Your task to perform on an android device: turn on the 12-hour format for clock Image 0: 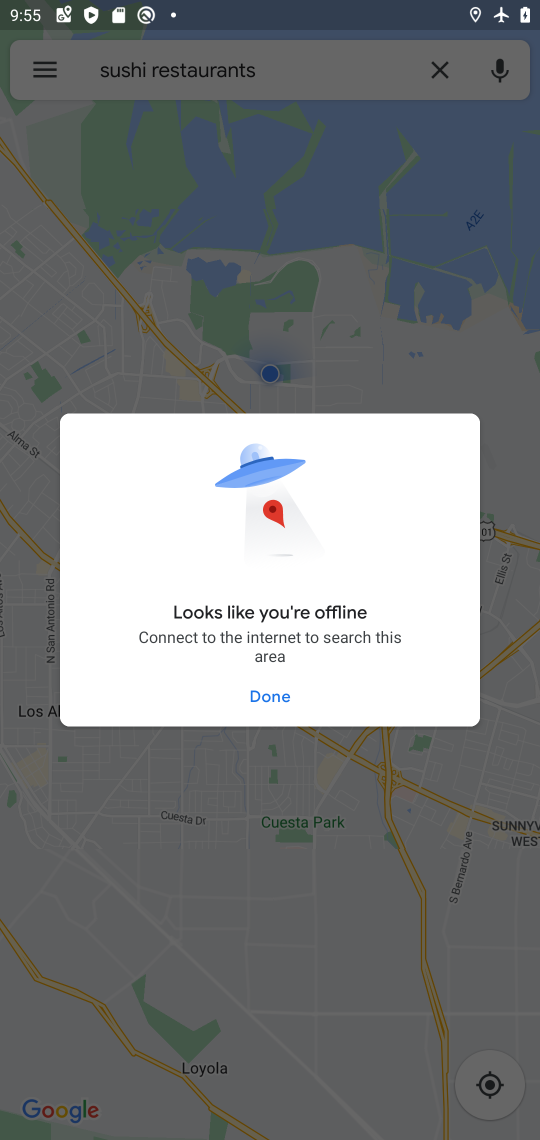
Step 0: press home button
Your task to perform on an android device: turn on the 12-hour format for clock Image 1: 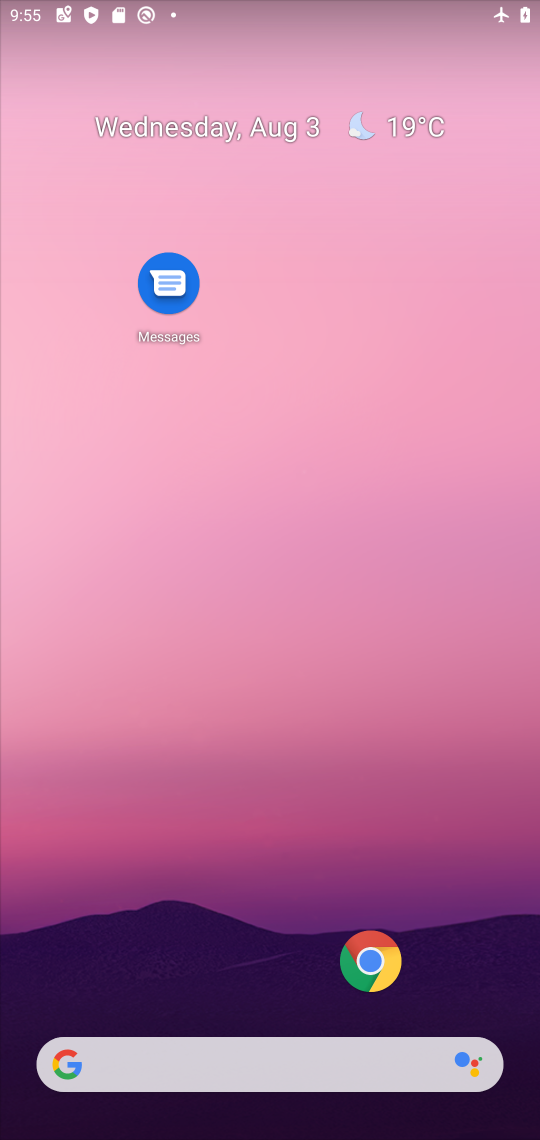
Step 1: drag from (266, 1019) to (129, 77)
Your task to perform on an android device: turn on the 12-hour format for clock Image 2: 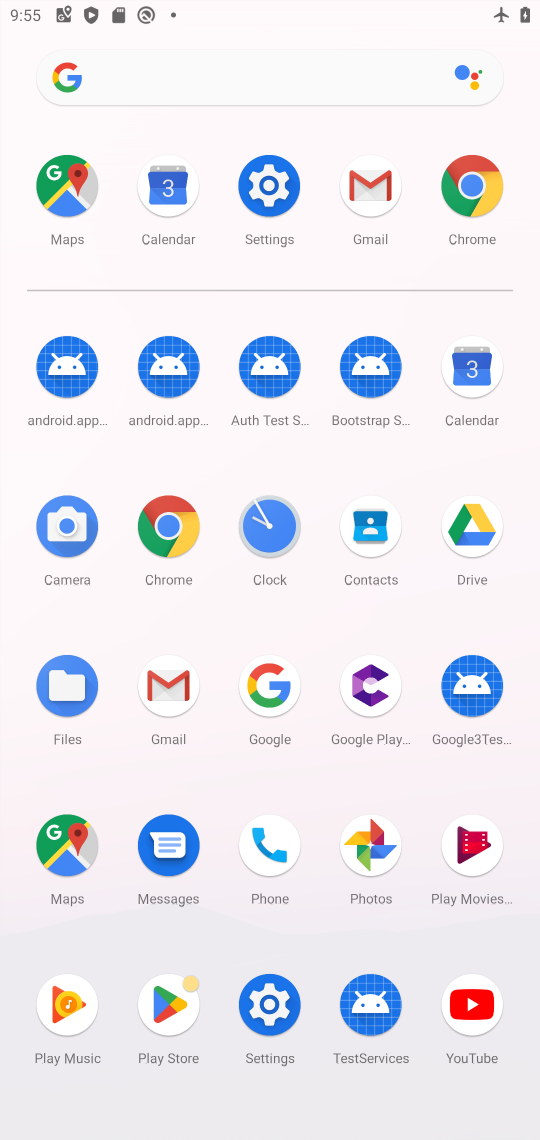
Step 2: click (271, 545)
Your task to perform on an android device: turn on the 12-hour format for clock Image 3: 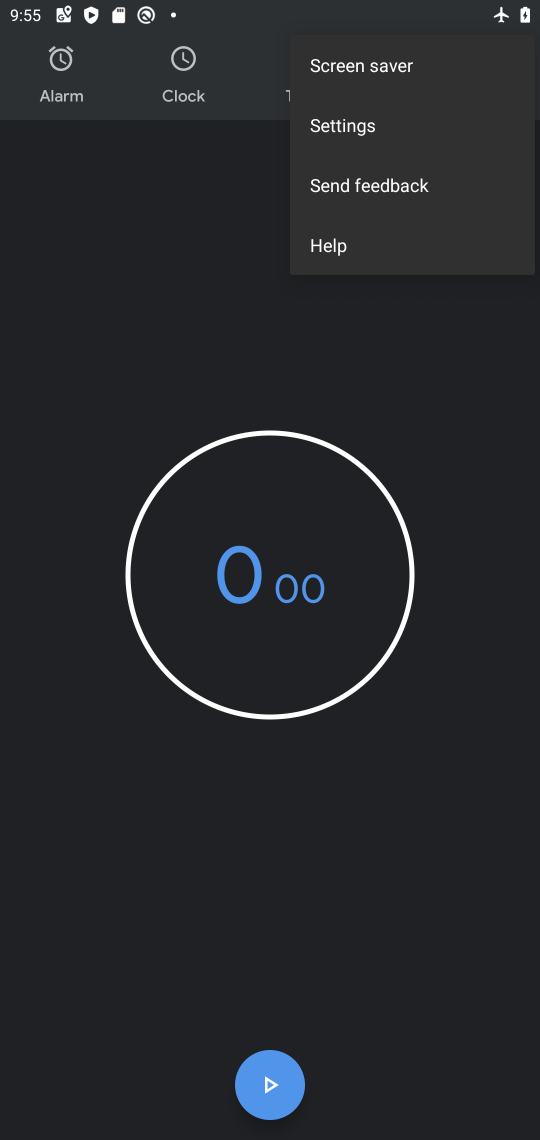
Step 3: click (349, 119)
Your task to perform on an android device: turn on the 12-hour format for clock Image 4: 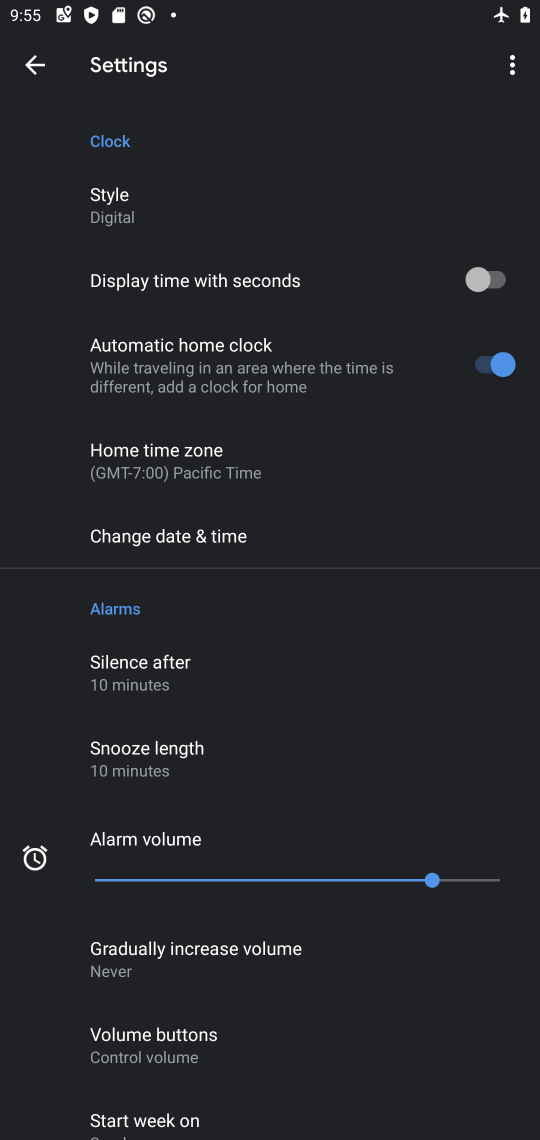
Step 4: click (167, 557)
Your task to perform on an android device: turn on the 12-hour format for clock Image 5: 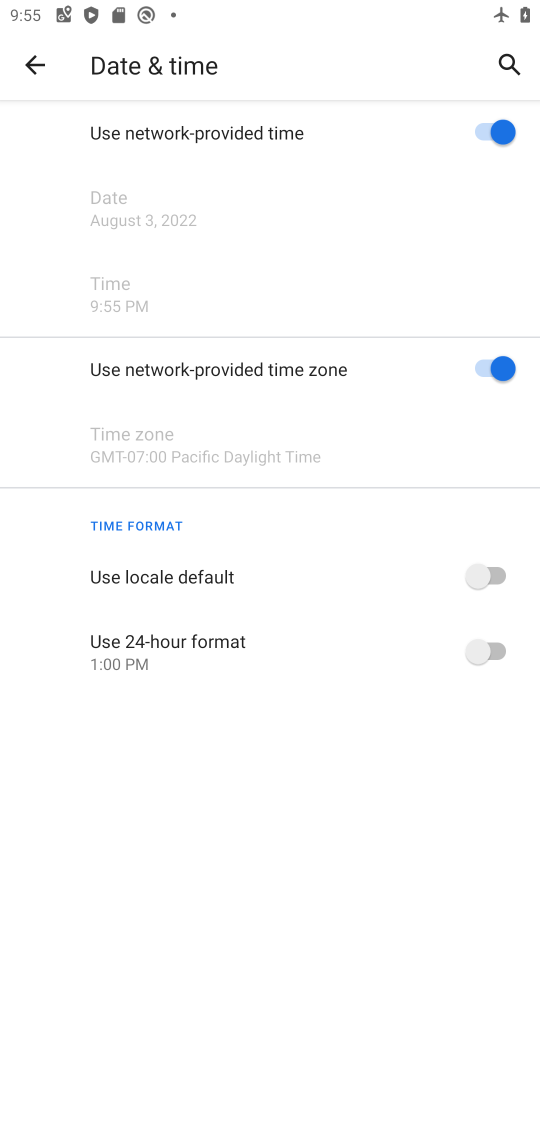
Step 5: task complete